Your task to perform on an android device: Go to location settings Image 0: 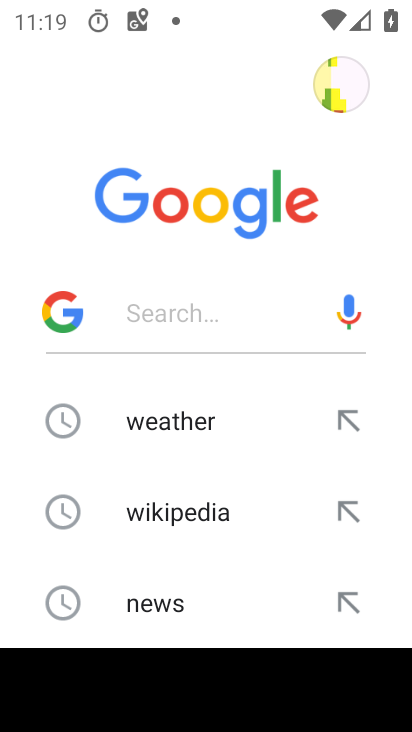
Step 0: press home button
Your task to perform on an android device: Go to location settings Image 1: 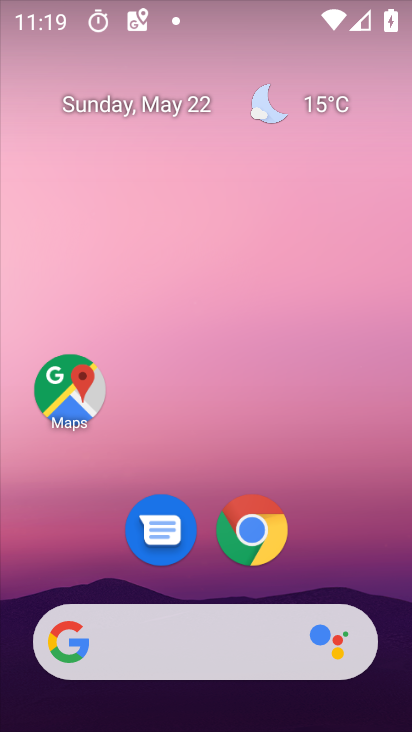
Step 1: drag from (395, 693) to (398, 245)
Your task to perform on an android device: Go to location settings Image 2: 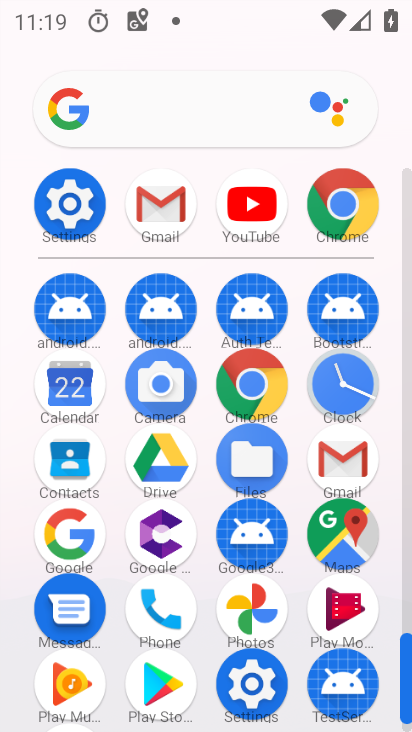
Step 2: click (253, 684)
Your task to perform on an android device: Go to location settings Image 3: 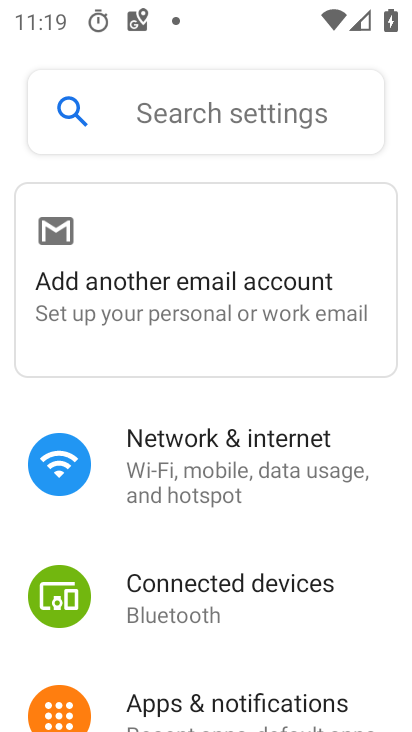
Step 3: drag from (369, 708) to (356, 331)
Your task to perform on an android device: Go to location settings Image 4: 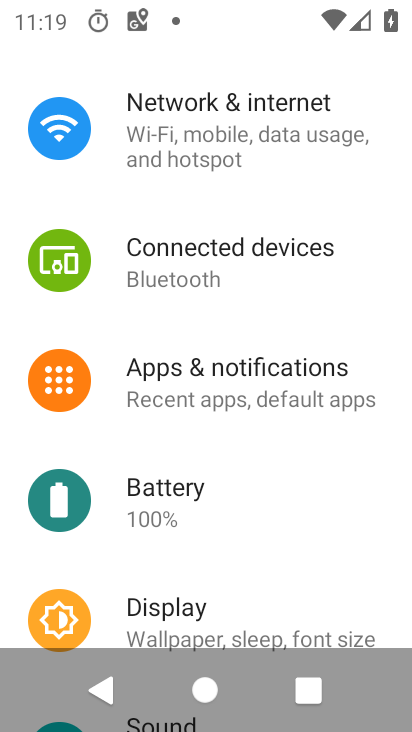
Step 4: drag from (332, 607) to (302, 326)
Your task to perform on an android device: Go to location settings Image 5: 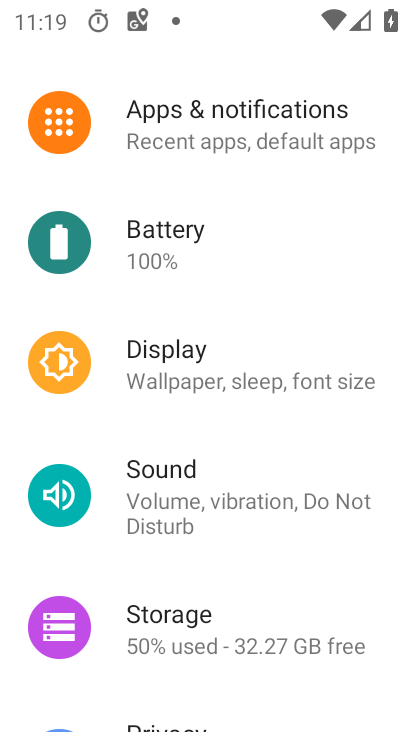
Step 5: drag from (304, 698) to (297, 270)
Your task to perform on an android device: Go to location settings Image 6: 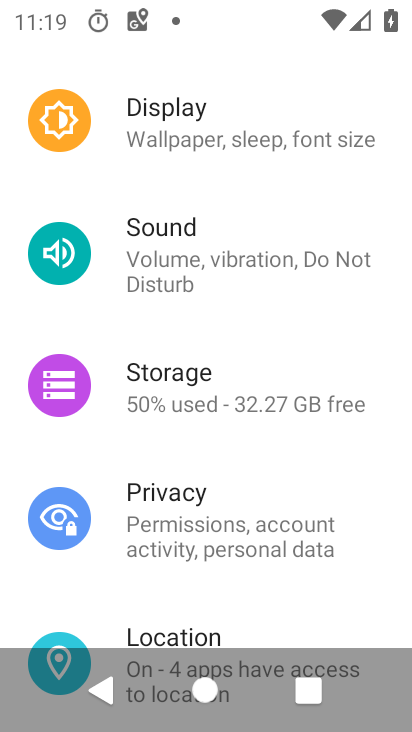
Step 6: click (202, 631)
Your task to perform on an android device: Go to location settings Image 7: 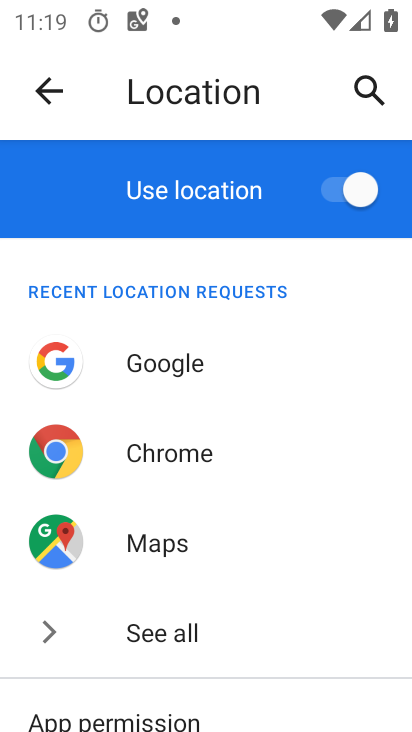
Step 7: task complete